Your task to perform on an android device: see tabs open on other devices in the chrome app Image 0: 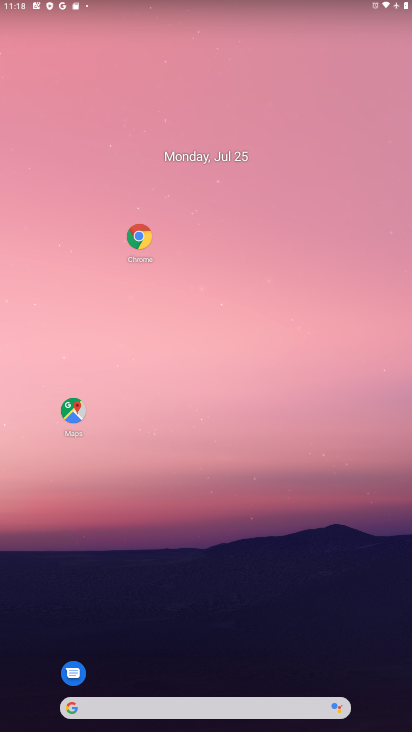
Step 0: click (142, 248)
Your task to perform on an android device: see tabs open on other devices in the chrome app Image 1: 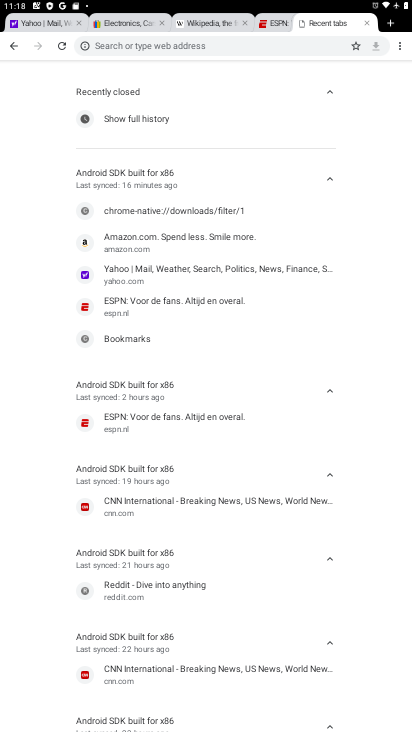
Step 1: click (399, 49)
Your task to perform on an android device: see tabs open on other devices in the chrome app Image 2: 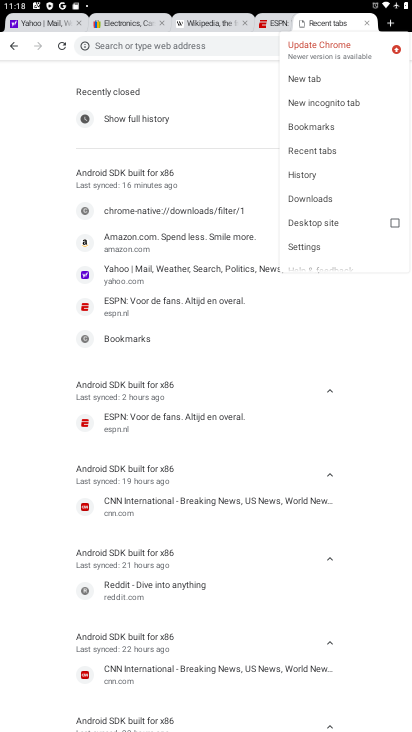
Step 2: click (335, 148)
Your task to perform on an android device: see tabs open on other devices in the chrome app Image 3: 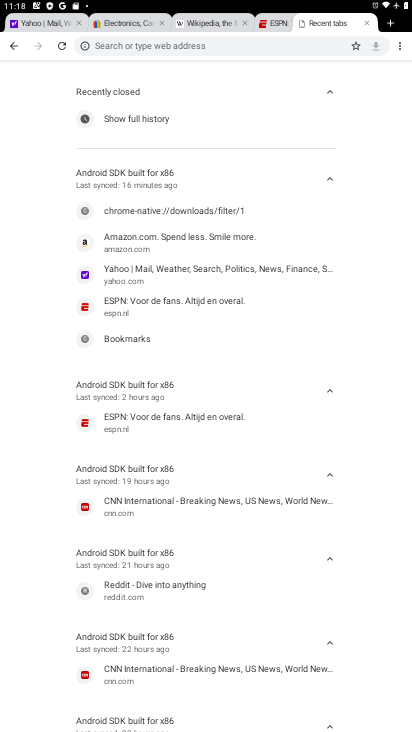
Step 3: task complete